Your task to perform on an android device: Empty the shopping cart on newegg.com. Search for "asus rog" on newegg.com, select the first entry, and add it to the cart. Image 0: 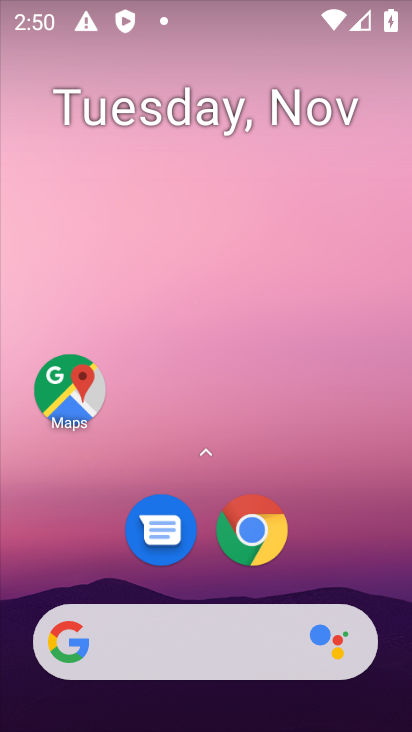
Step 0: drag from (214, 701) to (282, 11)
Your task to perform on an android device: Empty the shopping cart on newegg.com. Search for "asus rog" on newegg.com, select the first entry, and add it to the cart. Image 1: 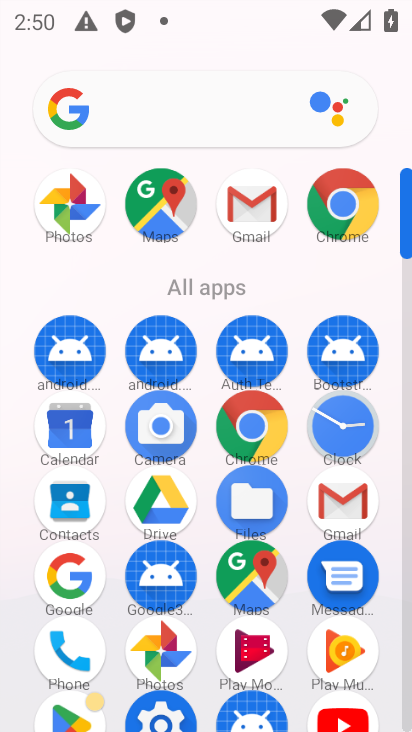
Step 1: click (250, 420)
Your task to perform on an android device: Empty the shopping cart on newegg.com. Search for "asus rog" on newegg.com, select the first entry, and add it to the cart. Image 2: 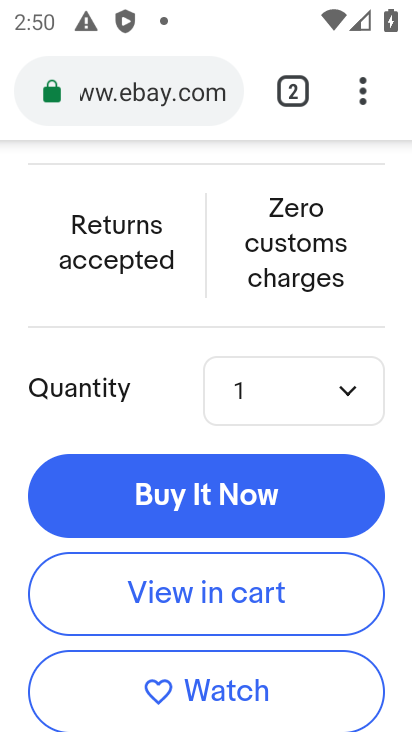
Step 2: click (128, 82)
Your task to perform on an android device: Empty the shopping cart on newegg.com. Search for "asus rog" on newegg.com, select the first entry, and add it to the cart. Image 3: 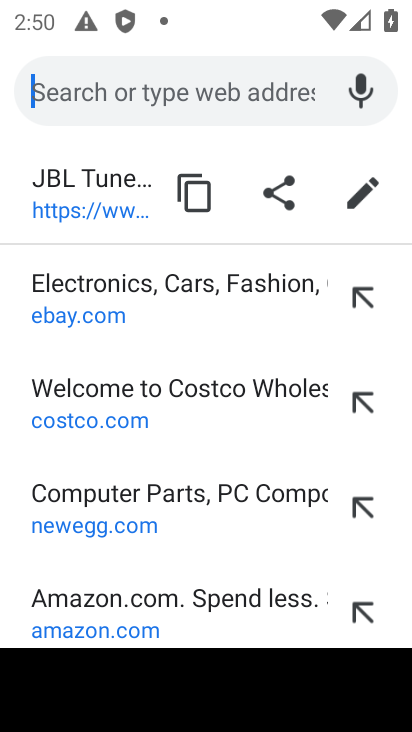
Step 3: type "newegg.com"
Your task to perform on an android device: Empty the shopping cart on newegg.com. Search for "asus rog" on newegg.com, select the first entry, and add it to the cart. Image 4: 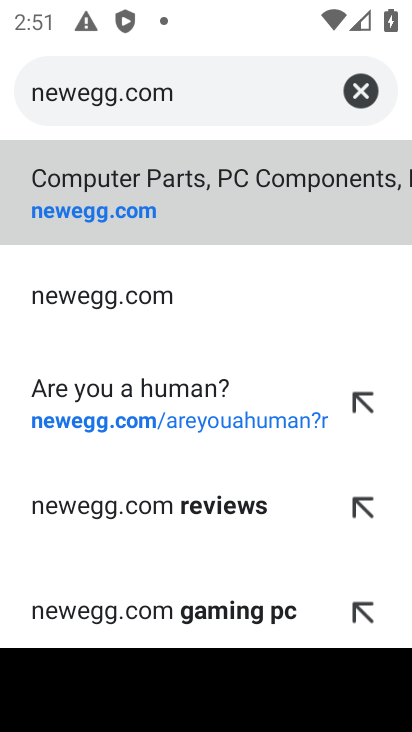
Step 4: click (77, 201)
Your task to perform on an android device: Empty the shopping cart on newegg.com. Search for "asus rog" on newegg.com, select the first entry, and add it to the cart. Image 5: 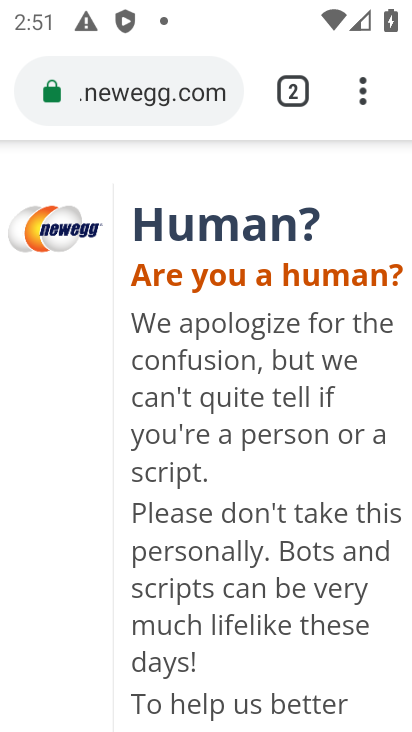
Step 5: task complete